Your task to perform on an android device: install app "Google Docs" Image 0: 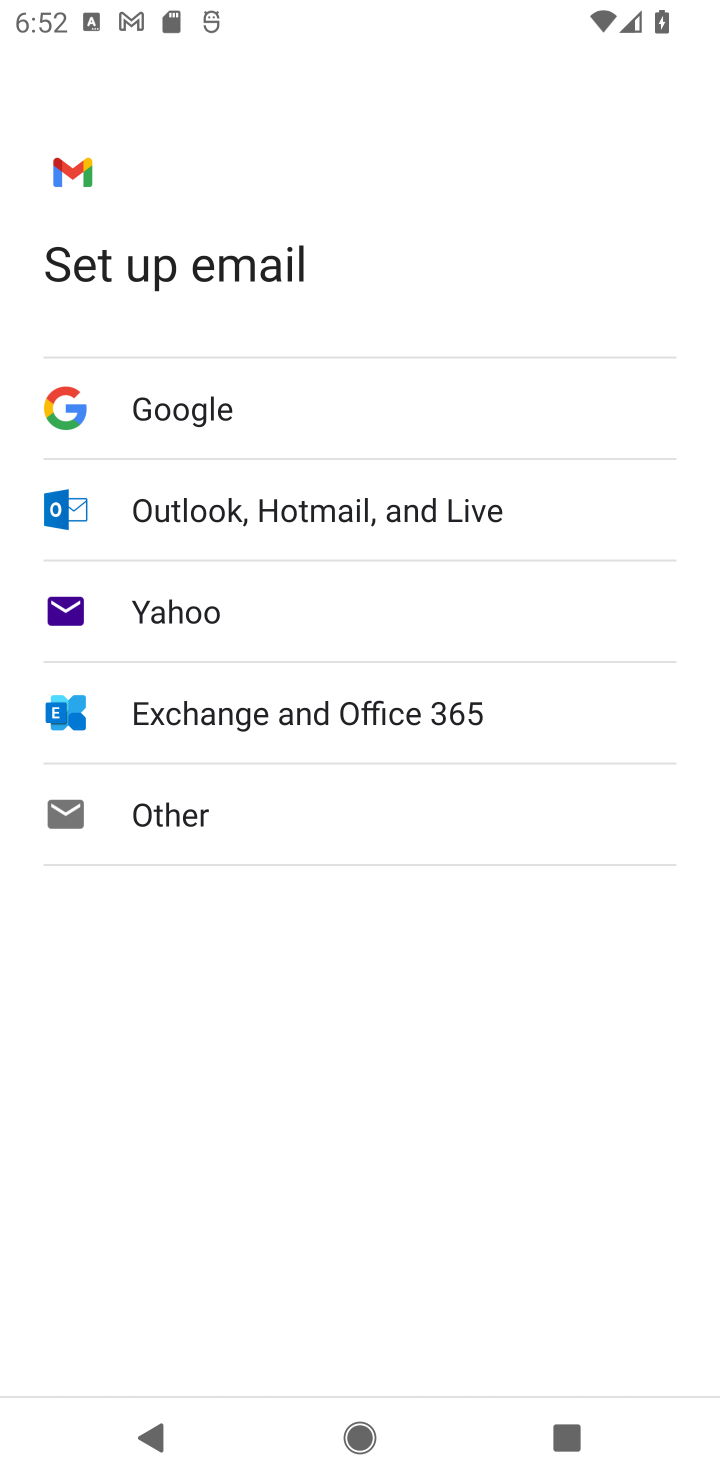
Step 0: press home button
Your task to perform on an android device: install app "Google Docs" Image 1: 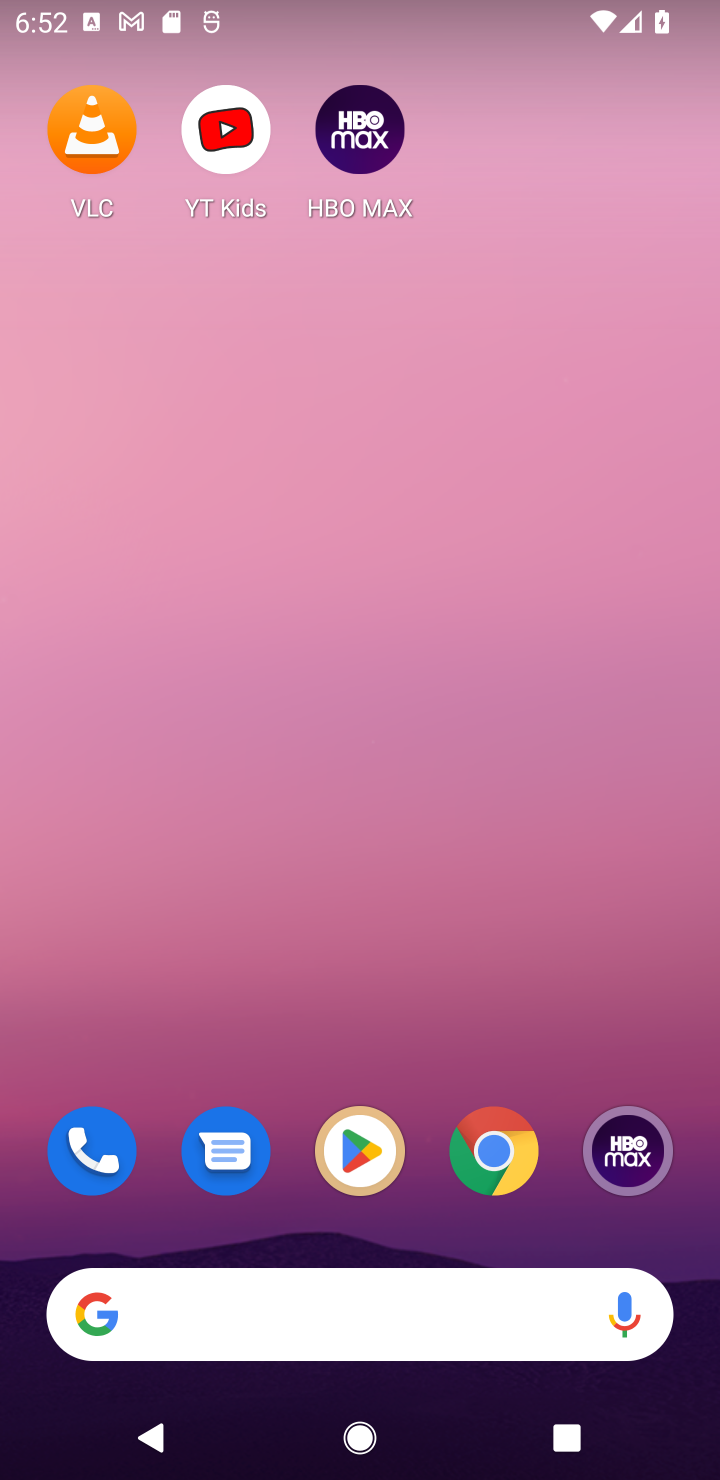
Step 1: click (368, 1143)
Your task to perform on an android device: install app "Google Docs" Image 2: 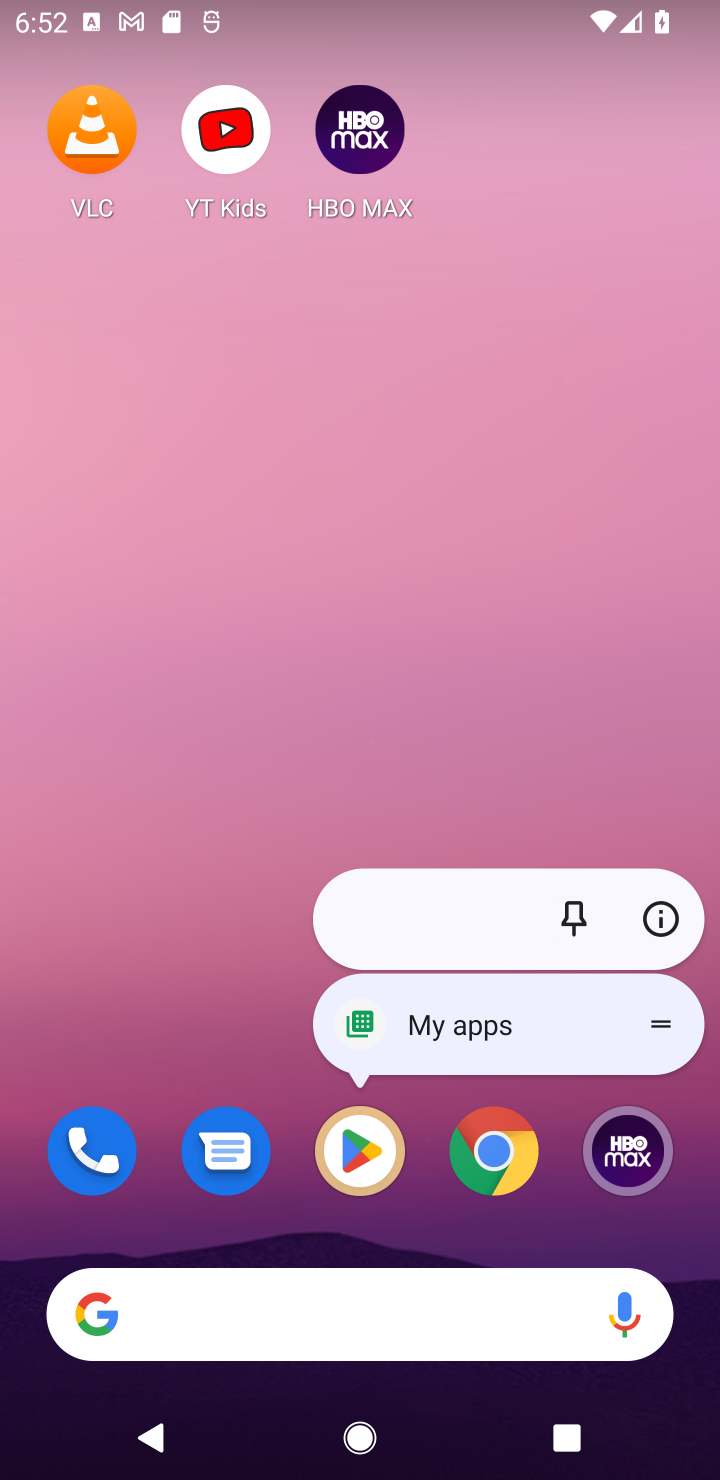
Step 2: click (359, 1154)
Your task to perform on an android device: install app "Google Docs" Image 3: 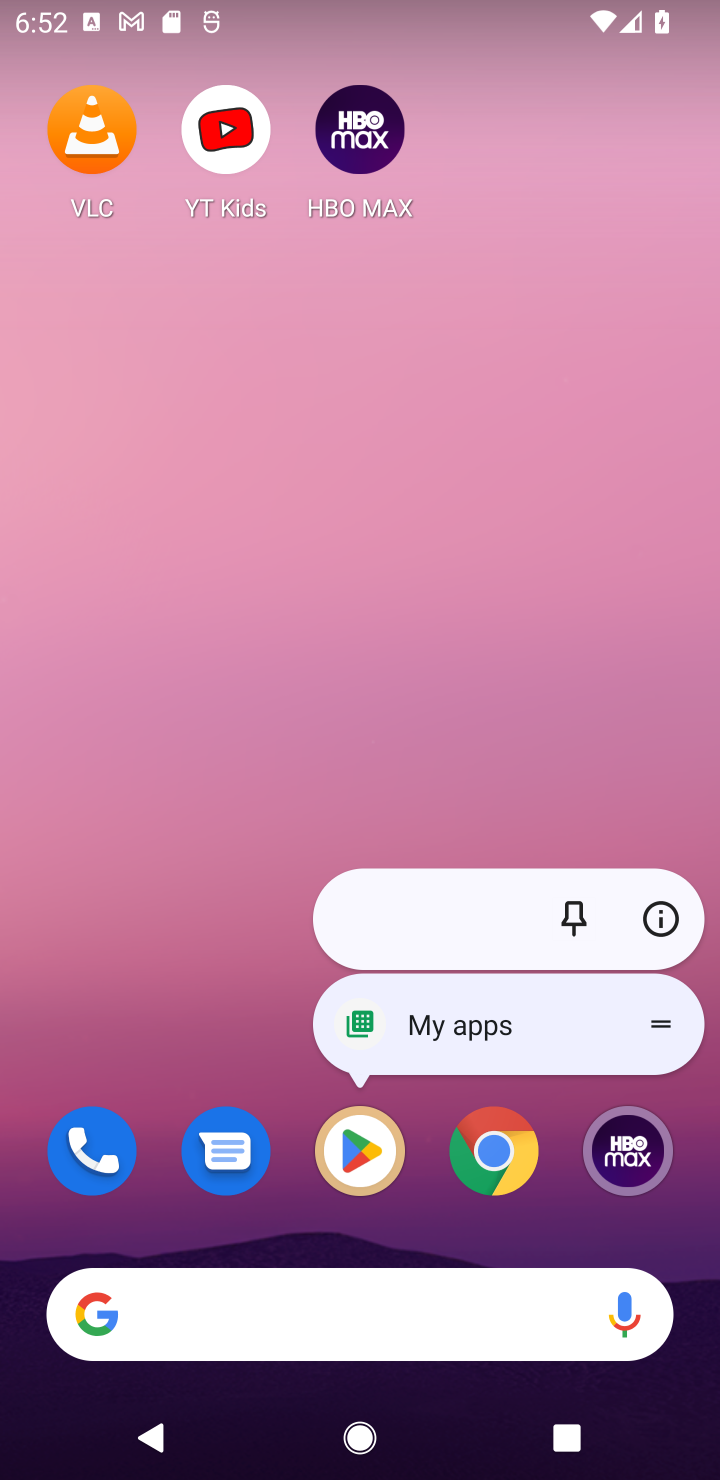
Step 3: click (359, 1154)
Your task to perform on an android device: install app "Google Docs" Image 4: 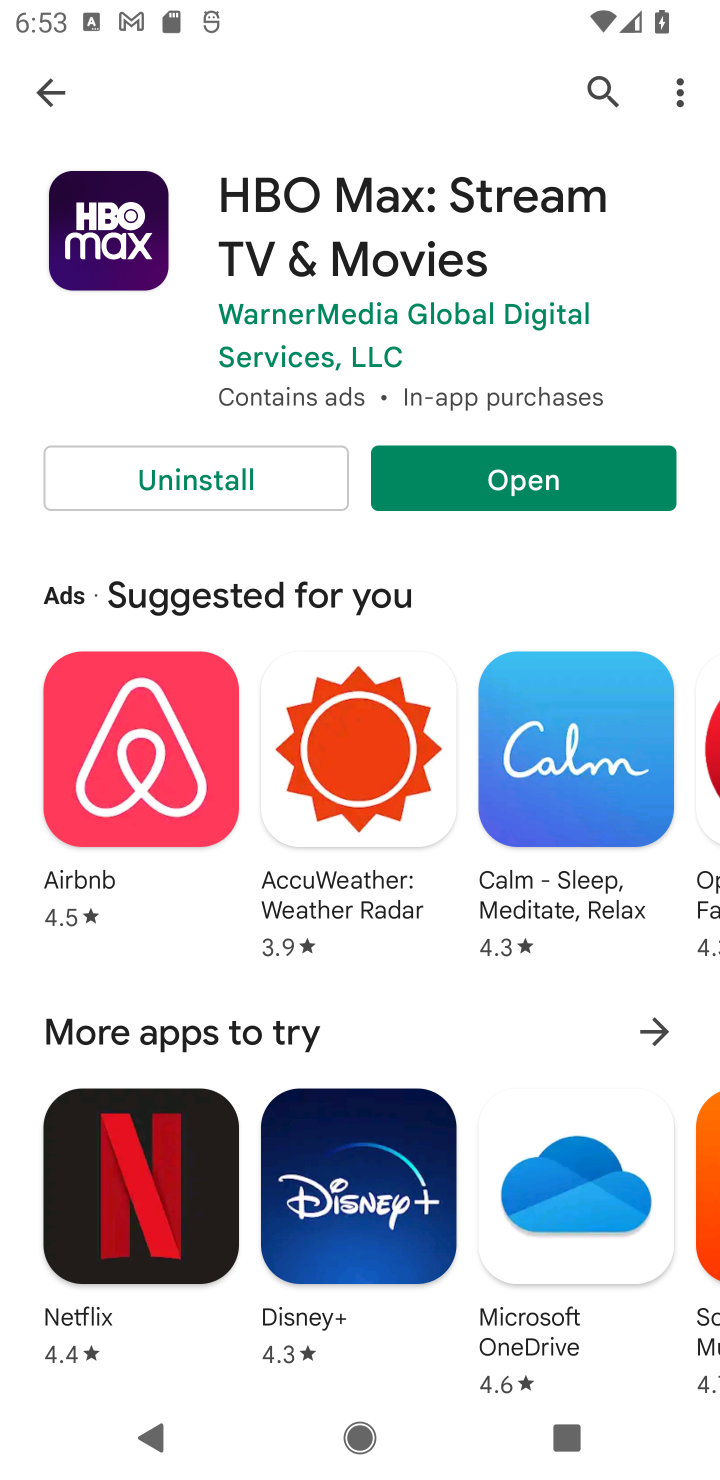
Step 4: click (600, 87)
Your task to perform on an android device: install app "Google Docs" Image 5: 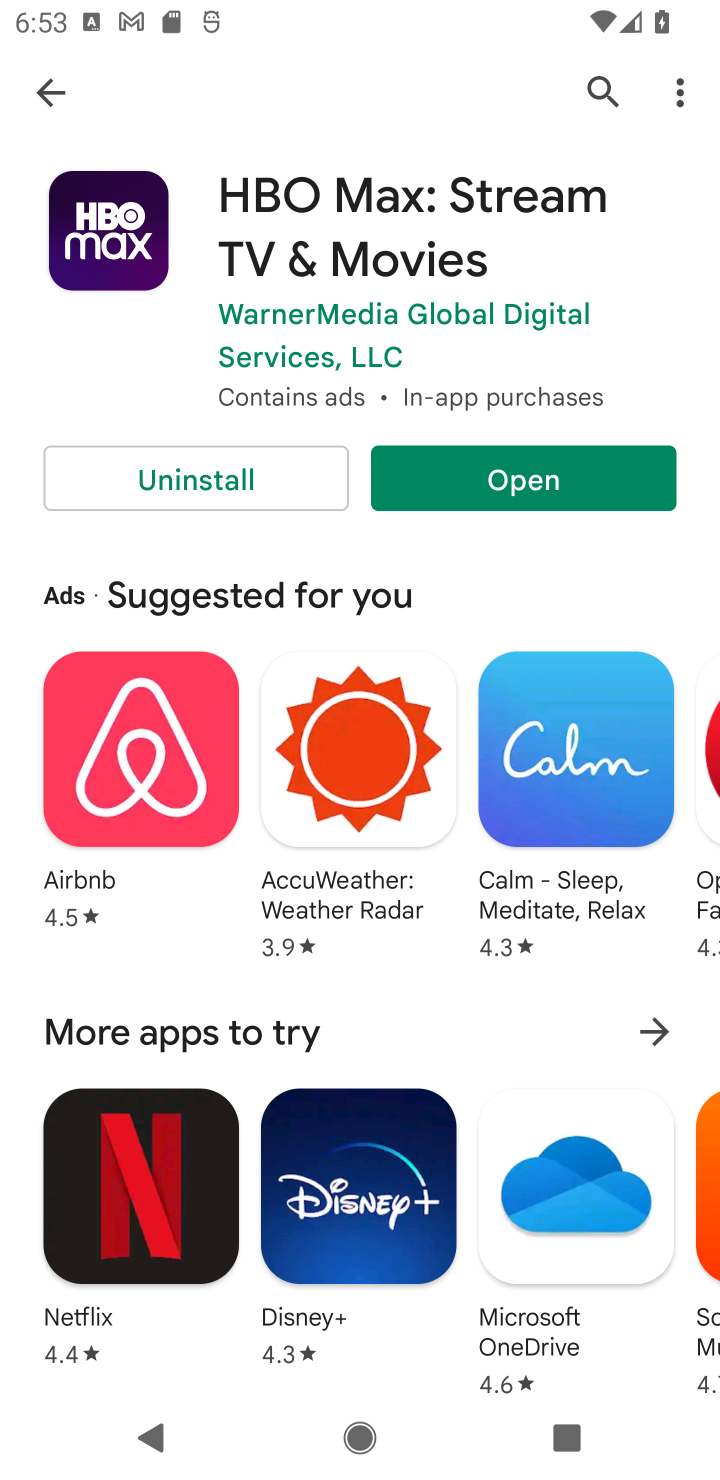
Step 5: click (595, 91)
Your task to perform on an android device: install app "Google Docs" Image 6: 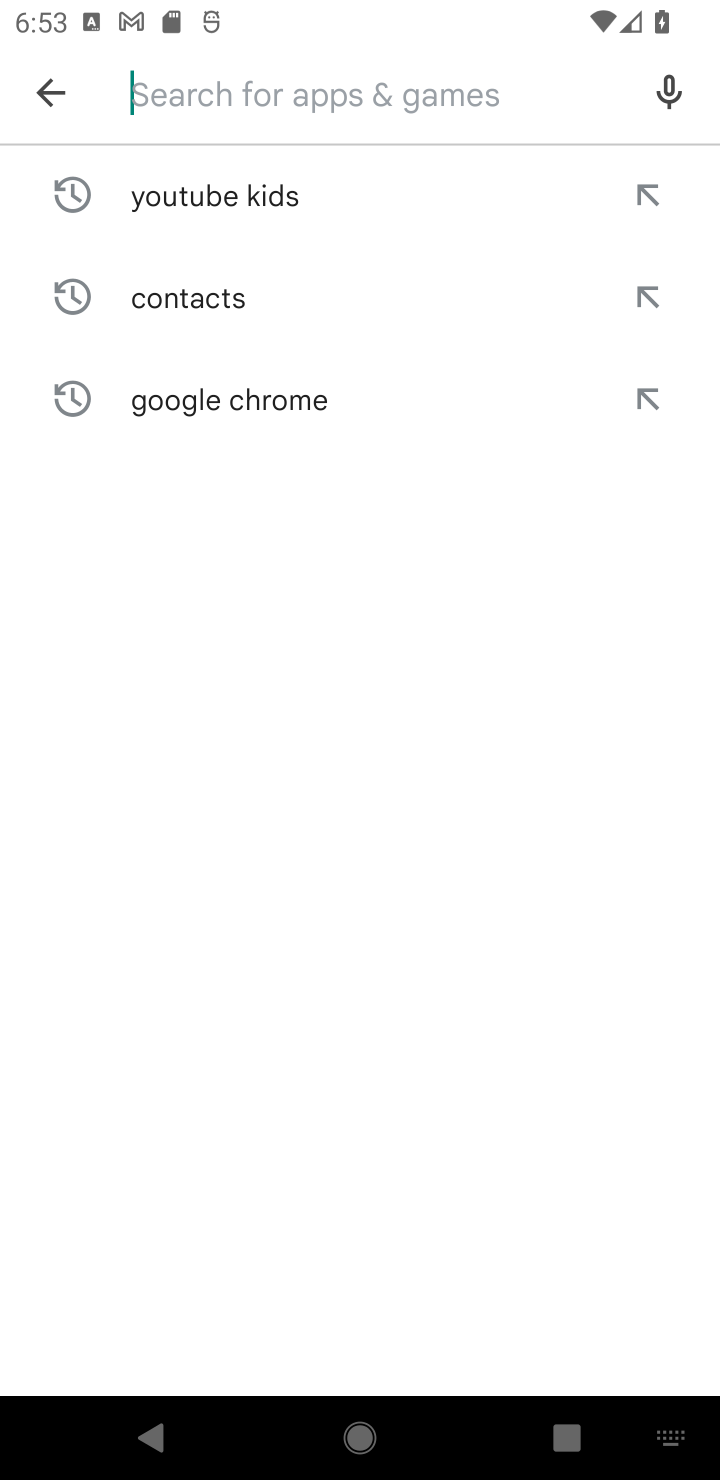
Step 6: type "Google Docs"
Your task to perform on an android device: install app "Google Docs" Image 7: 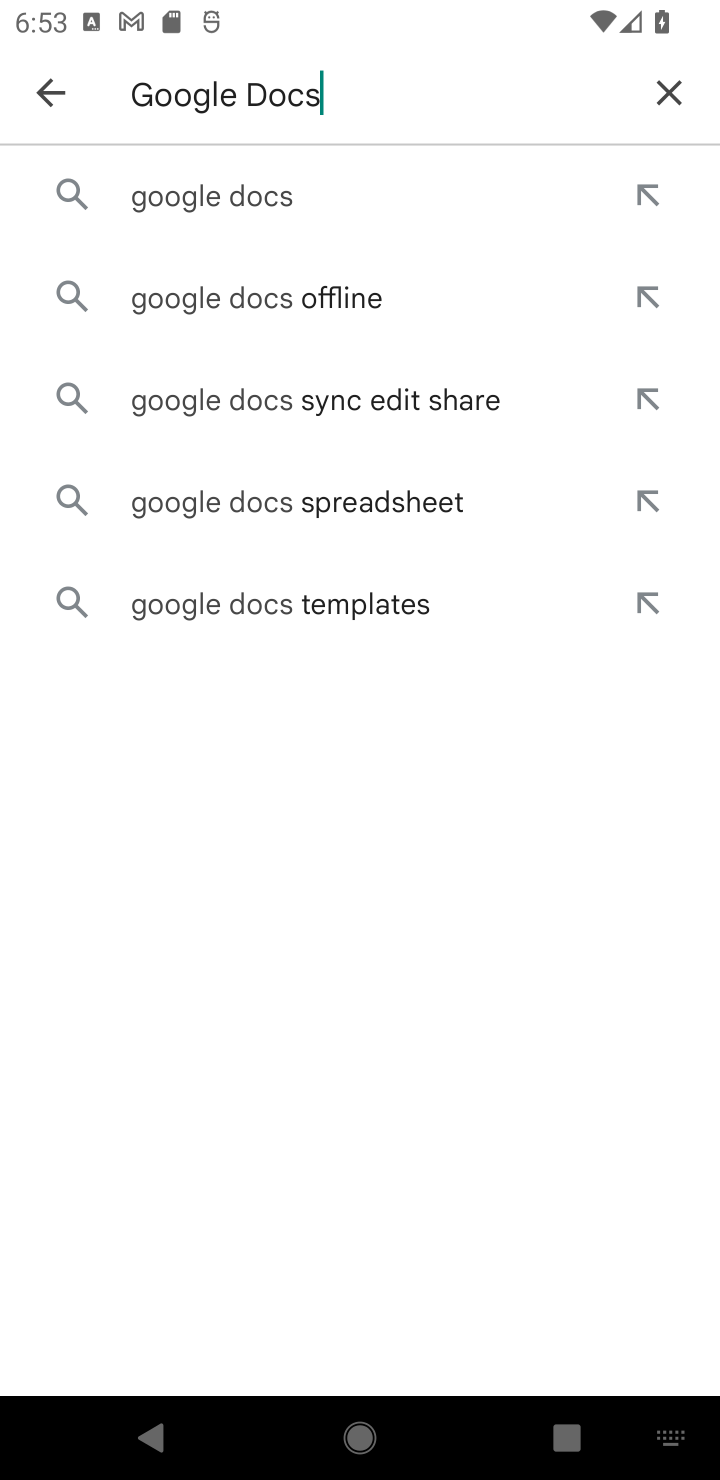
Step 7: click (253, 194)
Your task to perform on an android device: install app "Google Docs" Image 8: 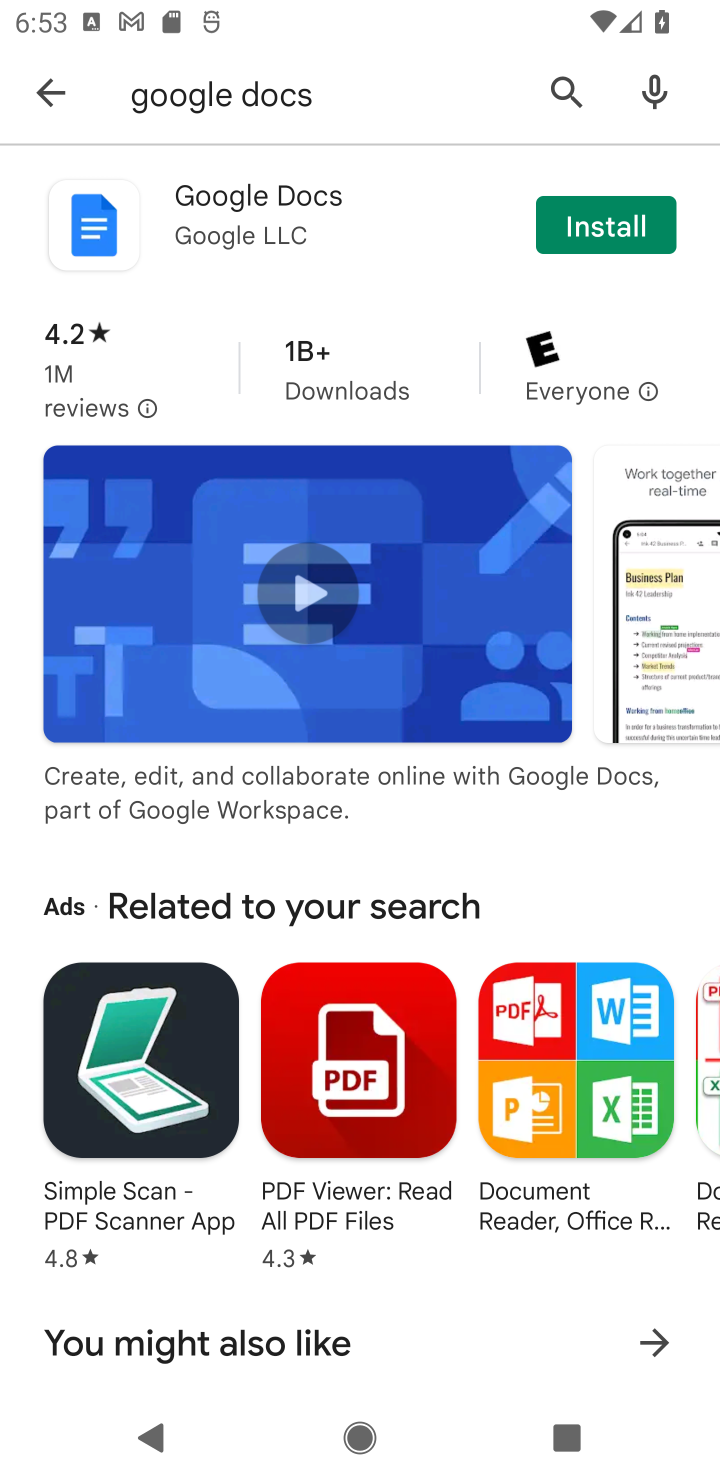
Step 8: click (620, 208)
Your task to perform on an android device: install app "Google Docs" Image 9: 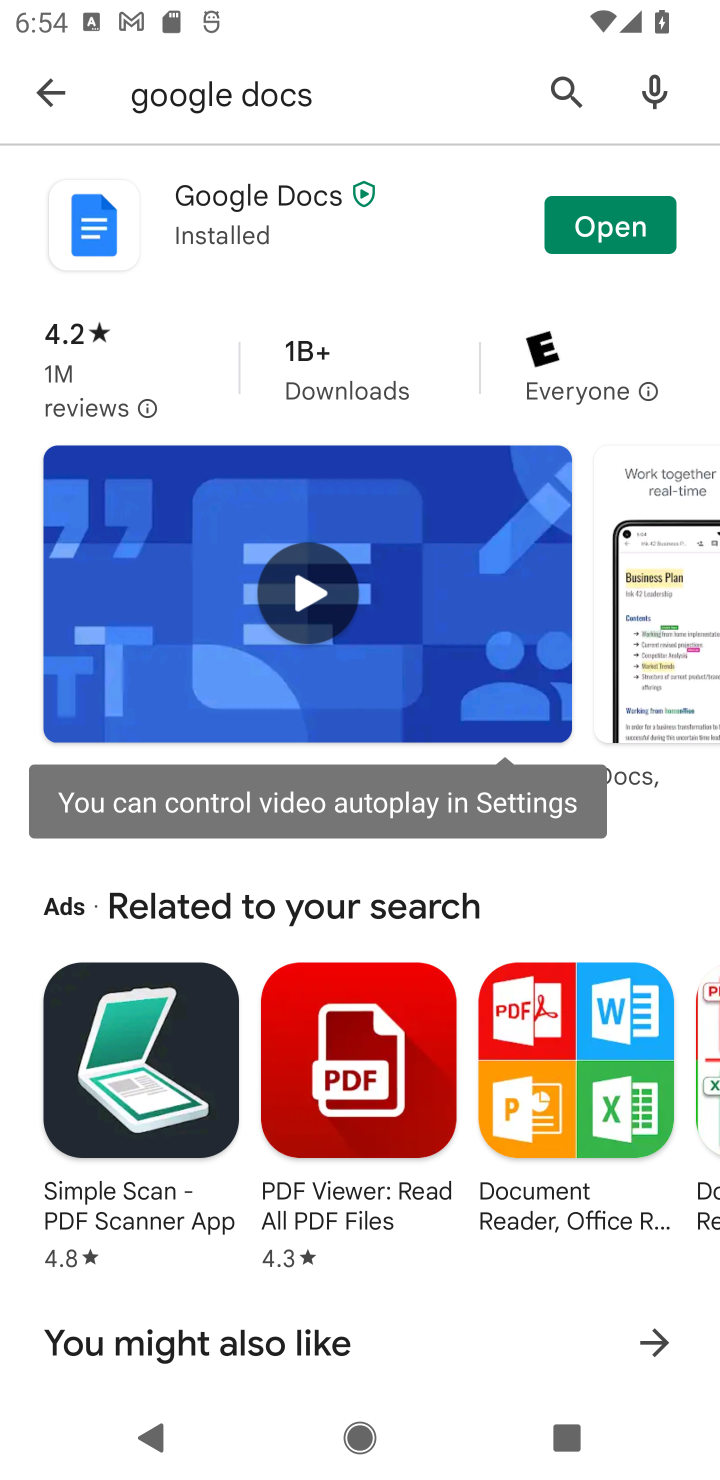
Step 9: task complete